Your task to perform on an android device: Go to display settings Image 0: 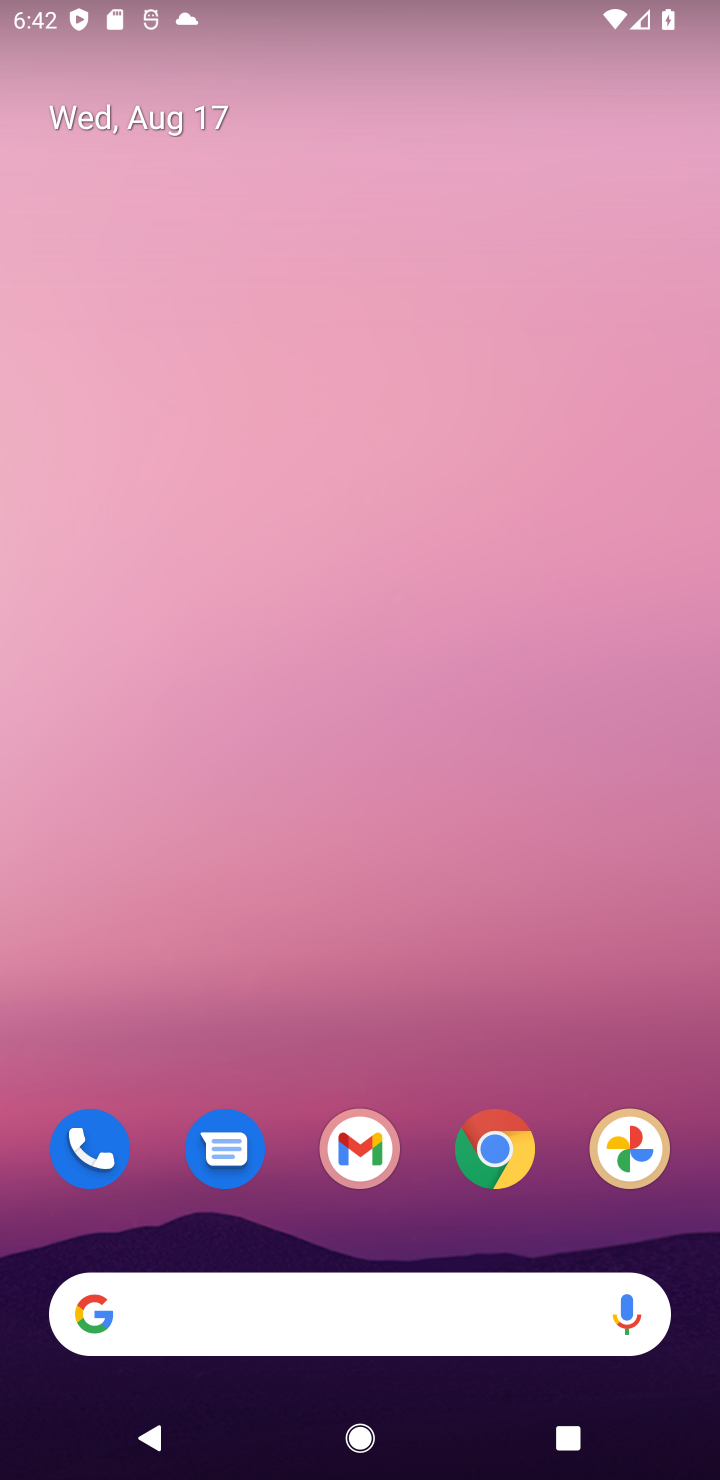
Step 0: drag from (391, 1063) to (499, 94)
Your task to perform on an android device: Go to display settings Image 1: 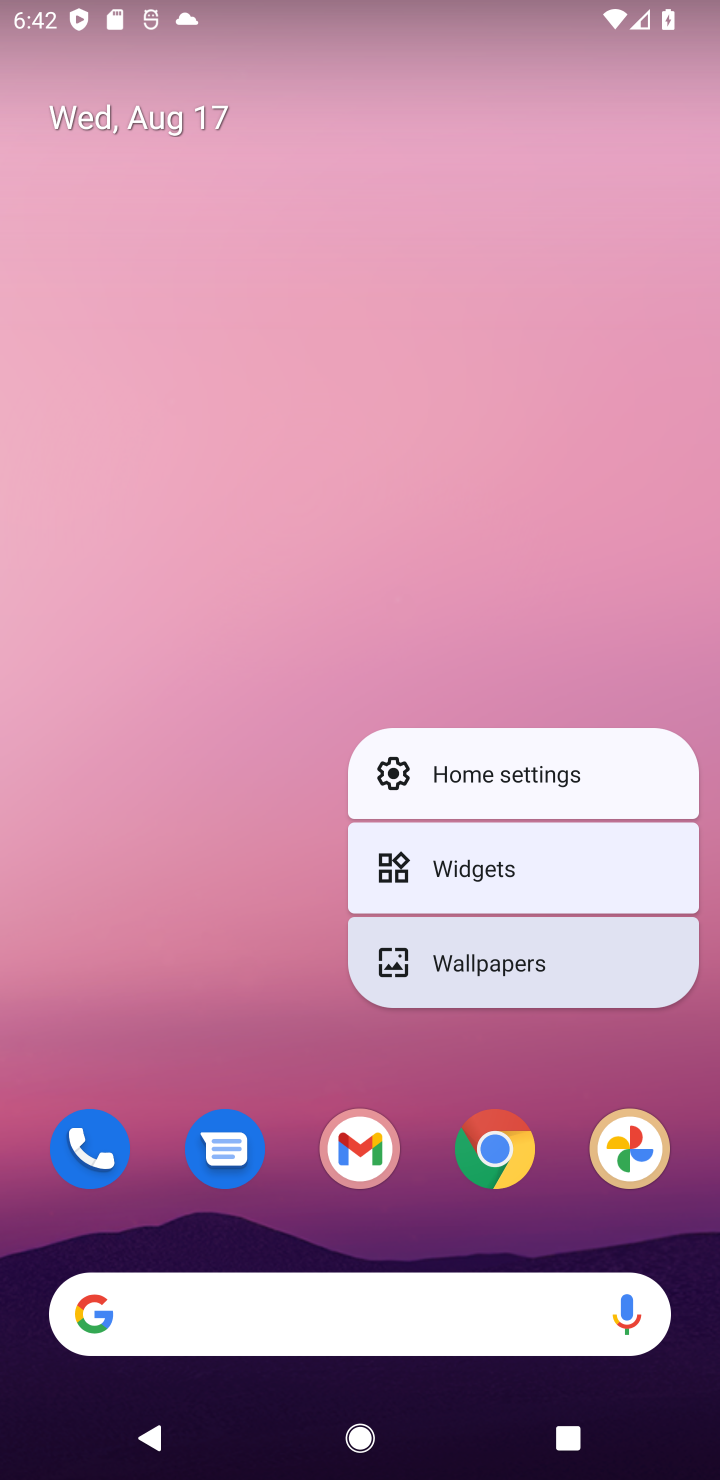
Step 1: click (285, 618)
Your task to perform on an android device: Go to display settings Image 2: 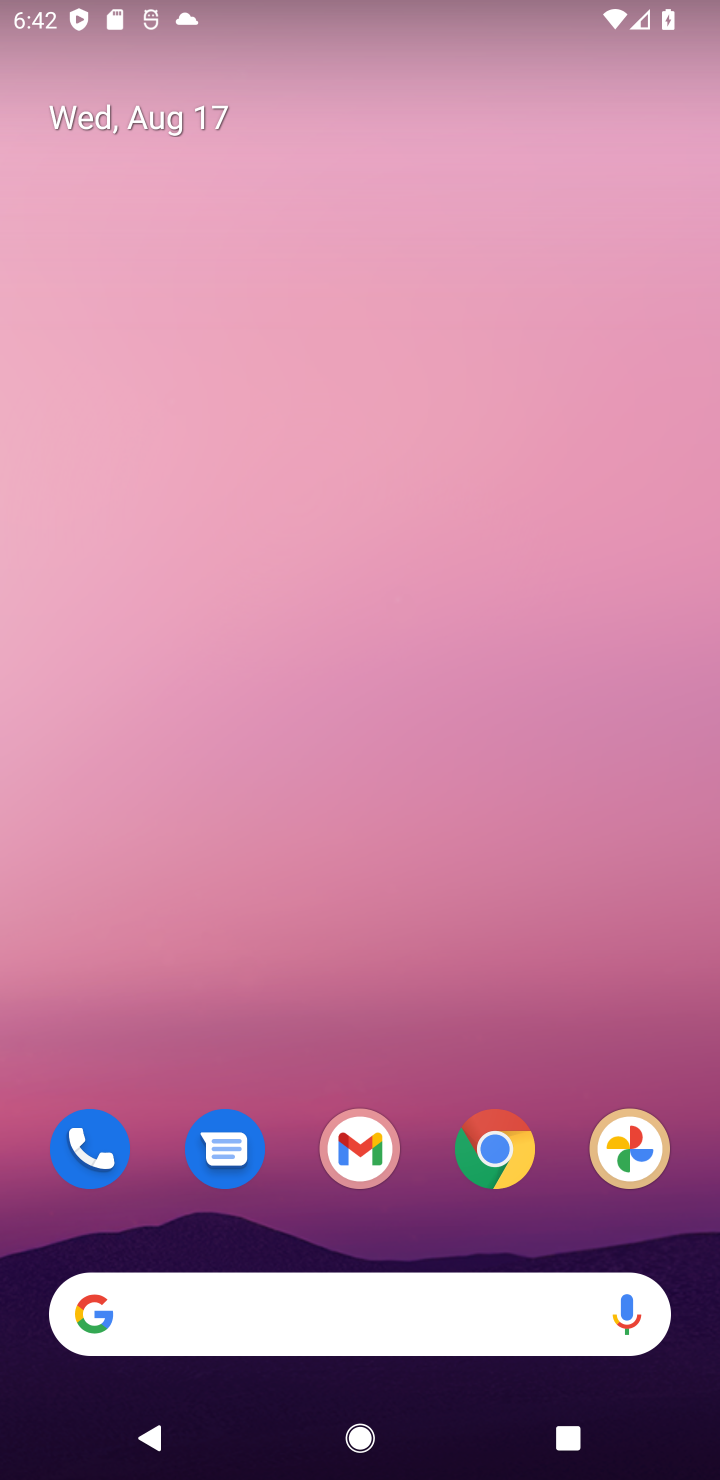
Step 2: drag from (401, 1013) to (386, 8)
Your task to perform on an android device: Go to display settings Image 3: 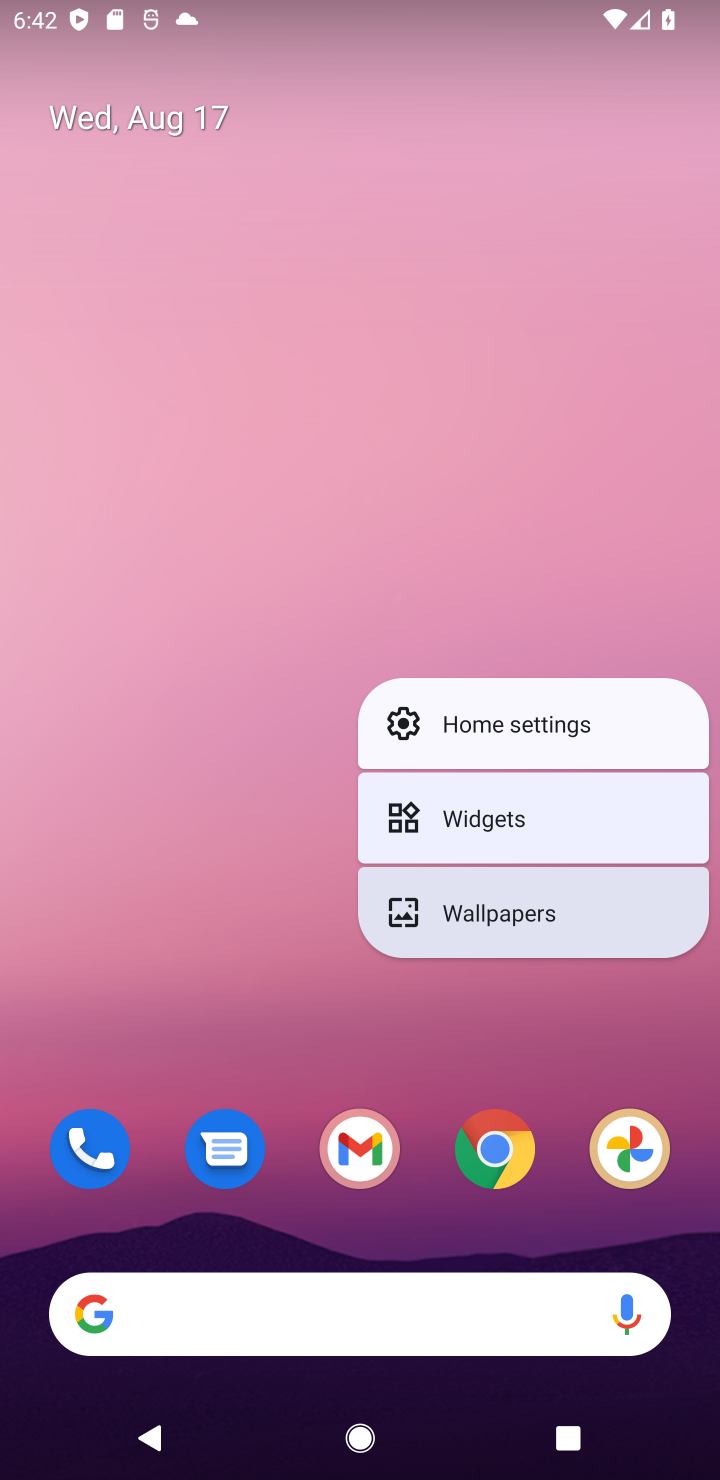
Step 3: click (221, 790)
Your task to perform on an android device: Go to display settings Image 4: 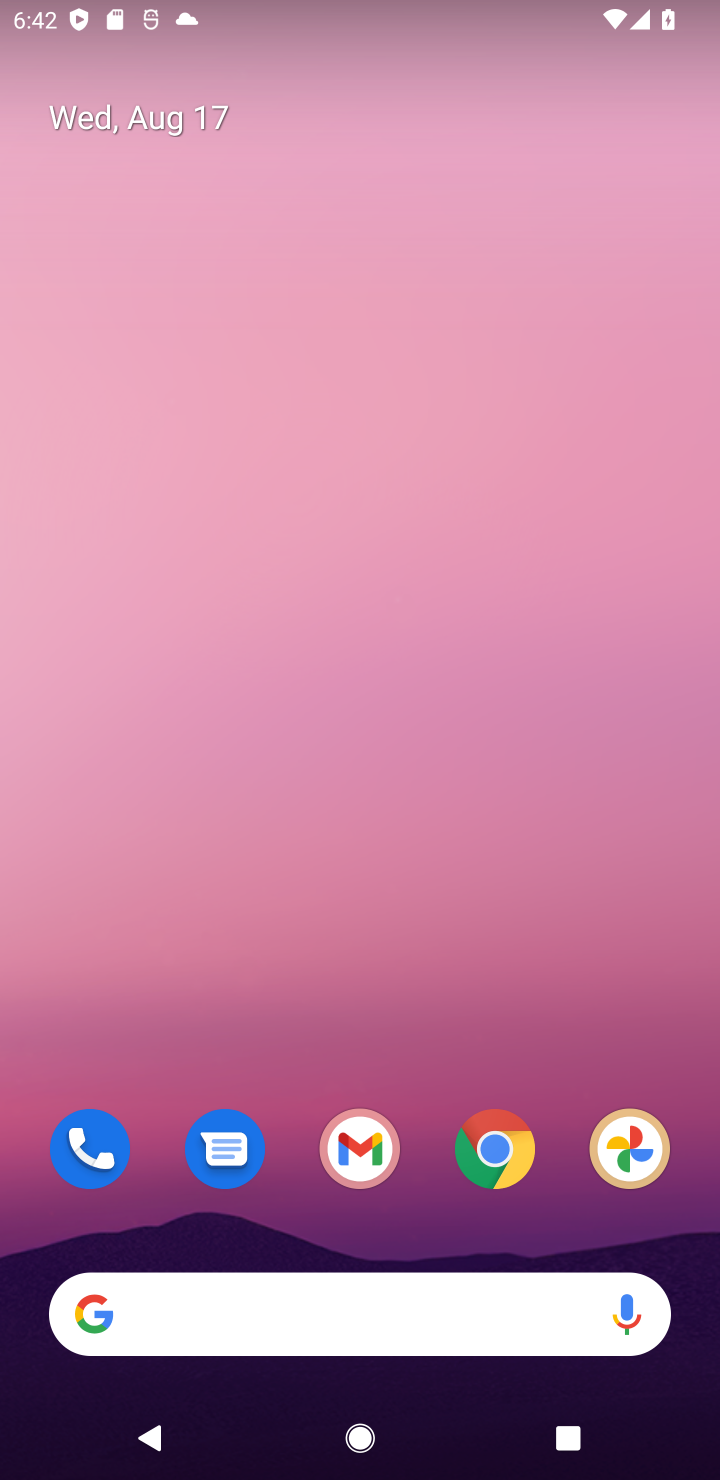
Step 4: drag from (425, 1228) to (231, 75)
Your task to perform on an android device: Go to display settings Image 5: 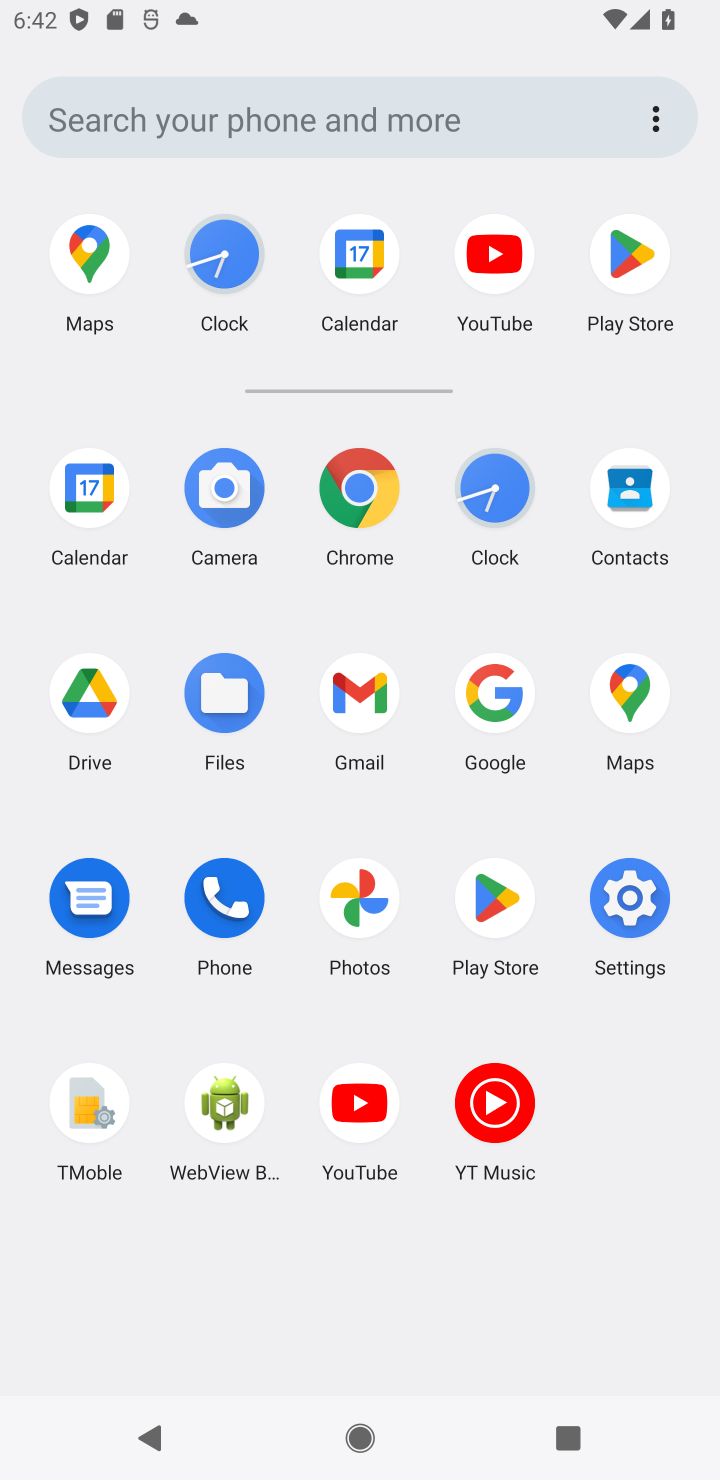
Step 5: click (626, 901)
Your task to perform on an android device: Go to display settings Image 6: 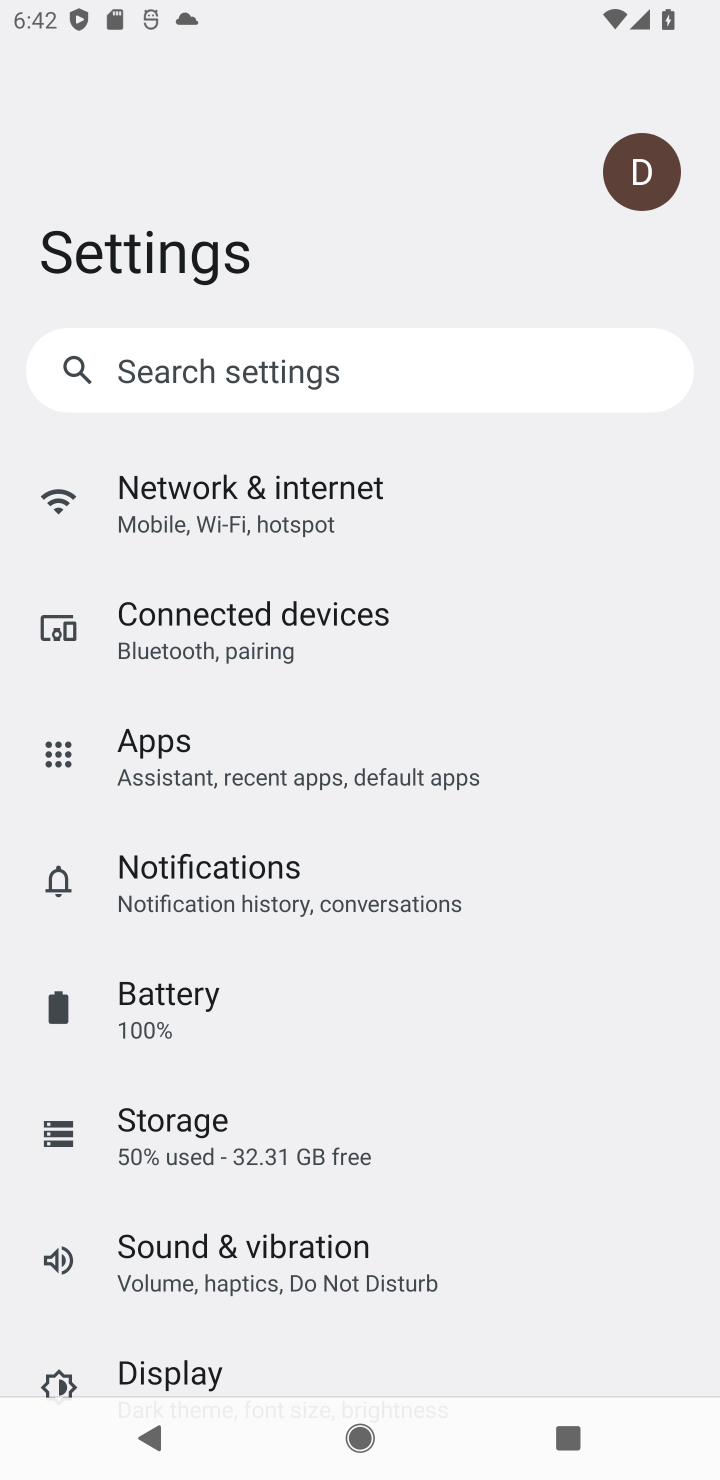
Step 6: click (162, 1371)
Your task to perform on an android device: Go to display settings Image 7: 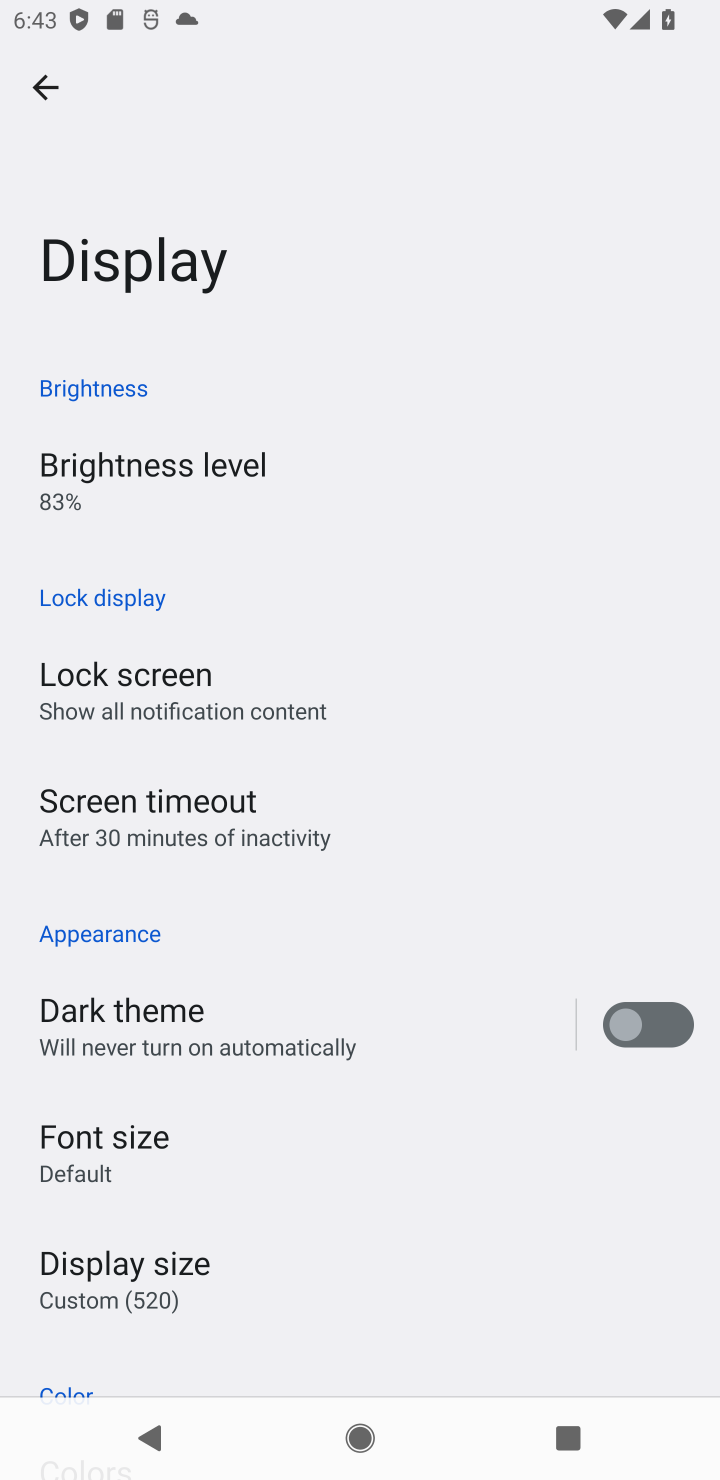
Step 7: task complete